Your task to perform on an android device: toggle javascript in the chrome app Image 0: 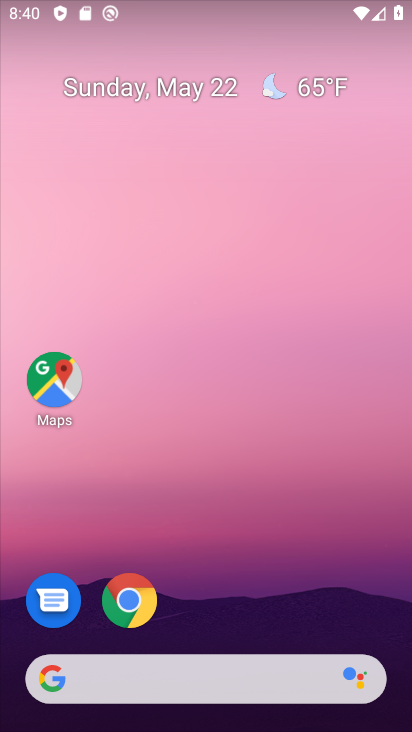
Step 0: click (127, 606)
Your task to perform on an android device: toggle javascript in the chrome app Image 1: 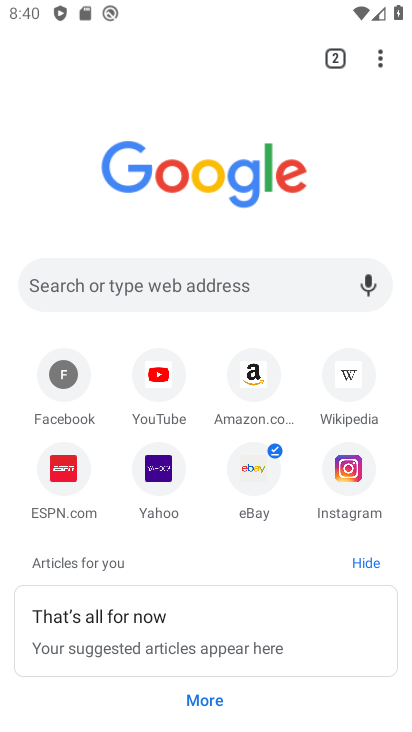
Step 1: click (380, 63)
Your task to perform on an android device: toggle javascript in the chrome app Image 2: 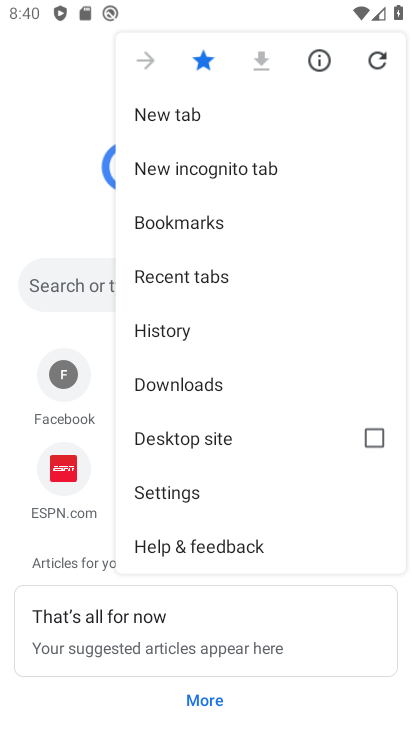
Step 2: click (182, 500)
Your task to perform on an android device: toggle javascript in the chrome app Image 3: 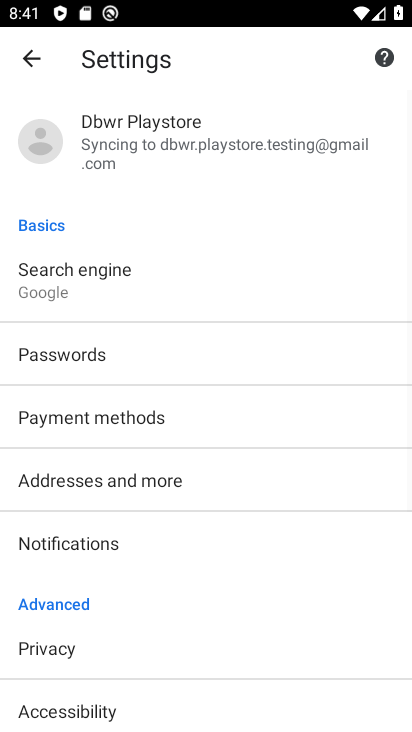
Step 3: drag from (146, 646) to (129, 329)
Your task to perform on an android device: toggle javascript in the chrome app Image 4: 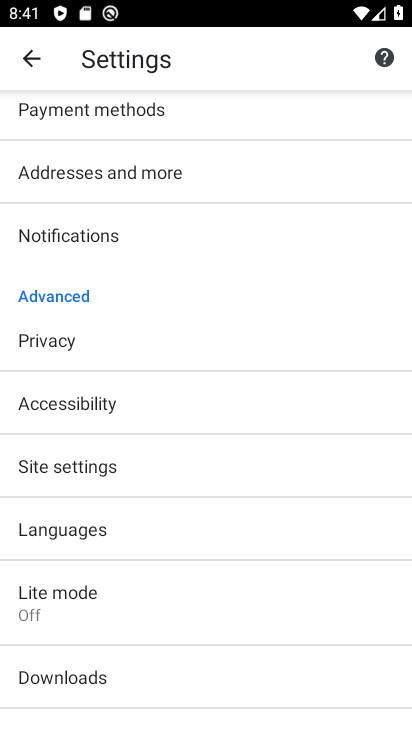
Step 4: drag from (107, 635) to (110, 332)
Your task to perform on an android device: toggle javascript in the chrome app Image 5: 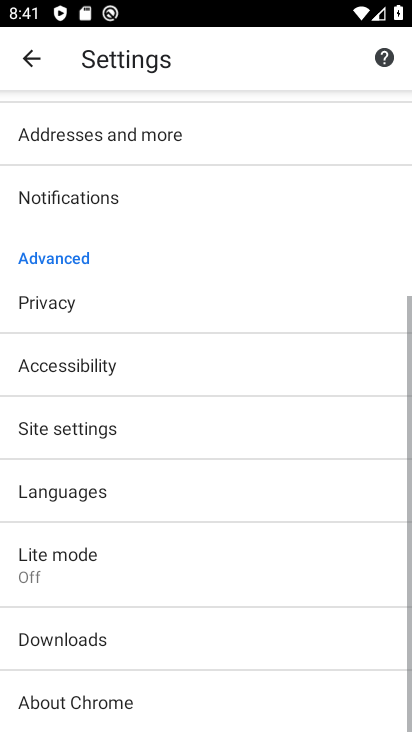
Step 5: click (74, 429)
Your task to perform on an android device: toggle javascript in the chrome app Image 6: 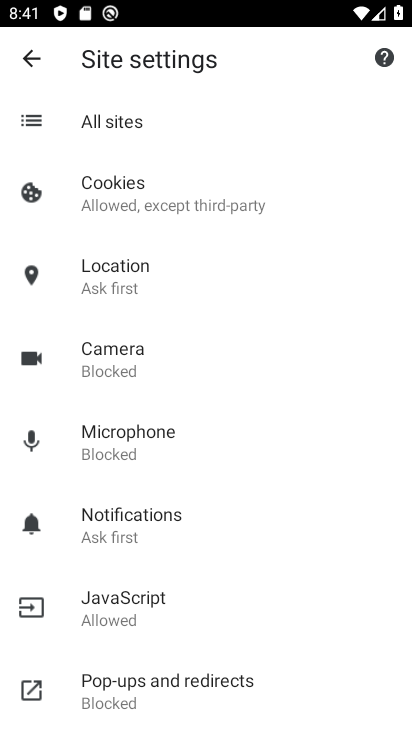
Step 6: click (119, 608)
Your task to perform on an android device: toggle javascript in the chrome app Image 7: 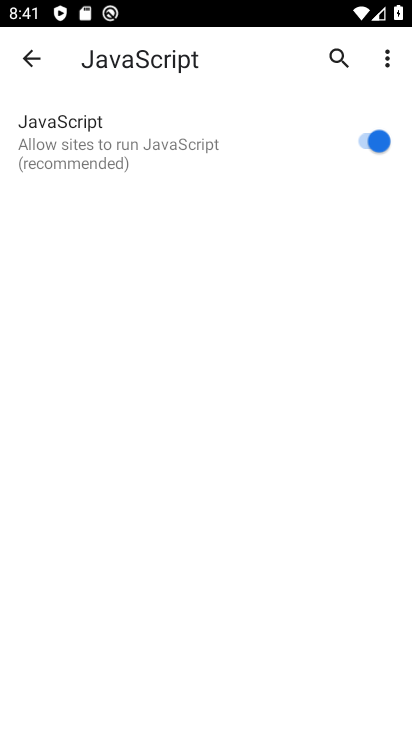
Step 7: click (369, 142)
Your task to perform on an android device: toggle javascript in the chrome app Image 8: 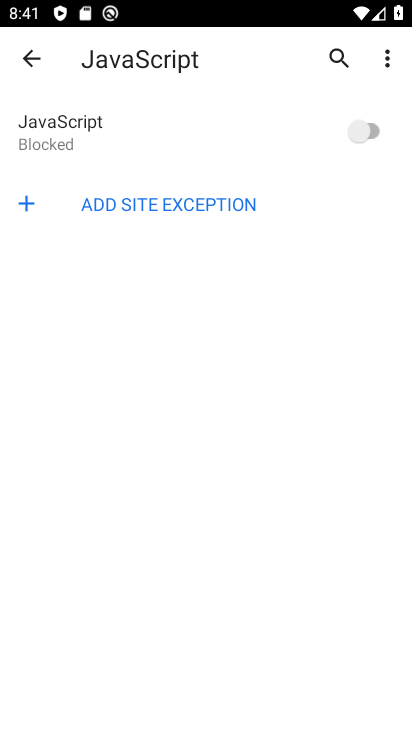
Step 8: task complete